Your task to perform on an android device: Open Yahoo.com Image 0: 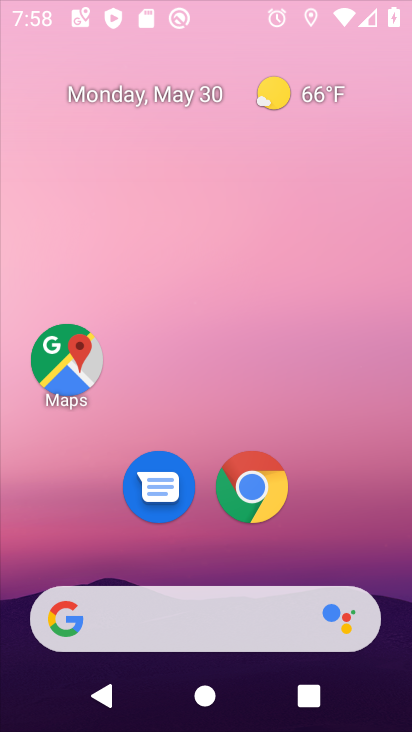
Step 0: press home button
Your task to perform on an android device: Open Yahoo.com Image 1: 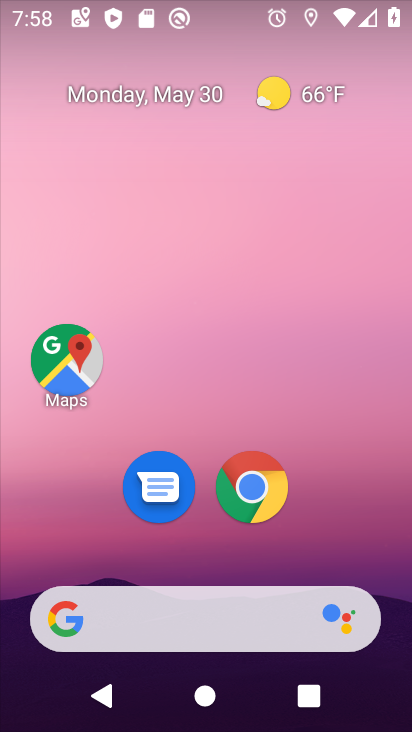
Step 1: click (65, 606)
Your task to perform on an android device: Open Yahoo.com Image 2: 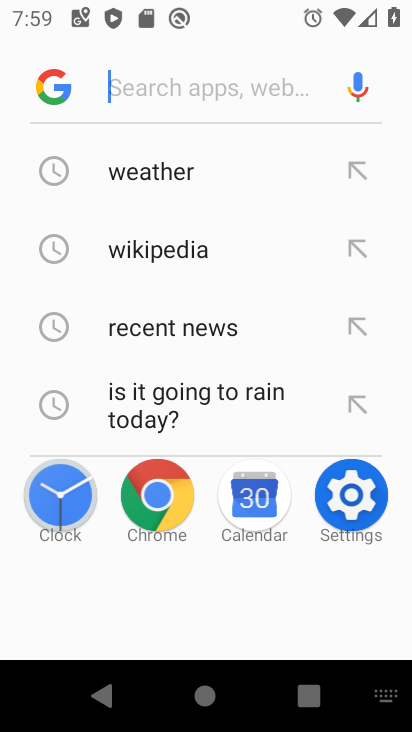
Step 2: type "Yahoo.com"
Your task to perform on an android device: Open Yahoo.com Image 3: 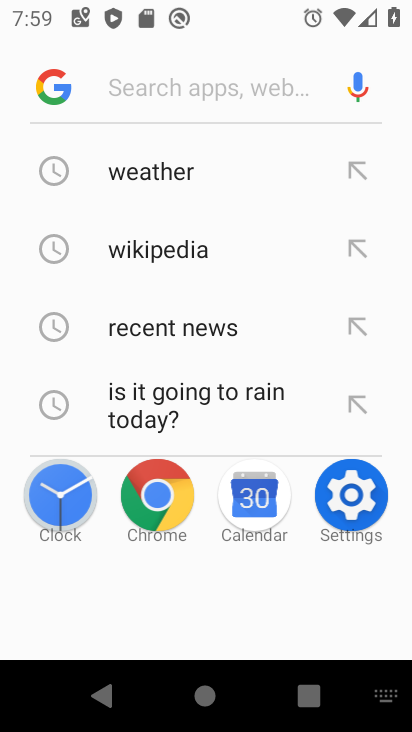
Step 3: click (214, 98)
Your task to perform on an android device: Open Yahoo.com Image 4: 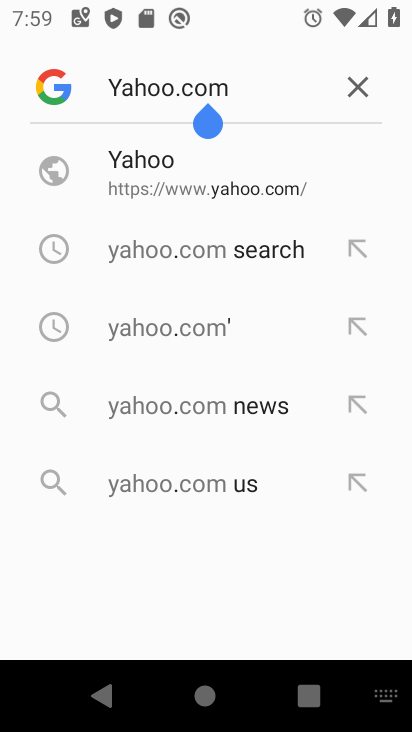
Step 4: click (160, 175)
Your task to perform on an android device: Open Yahoo.com Image 5: 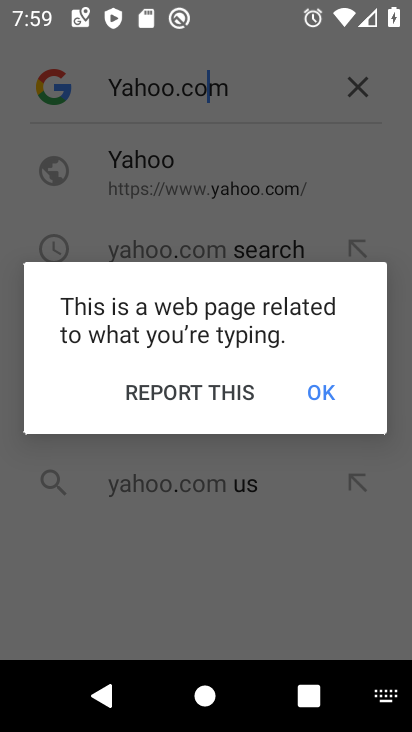
Step 5: click (329, 398)
Your task to perform on an android device: Open Yahoo.com Image 6: 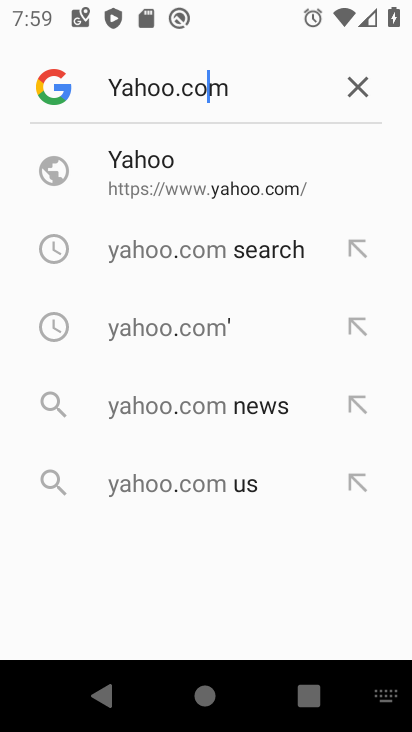
Step 6: click (137, 148)
Your task to perform on an android device: Open Yahoo.com Image 7: 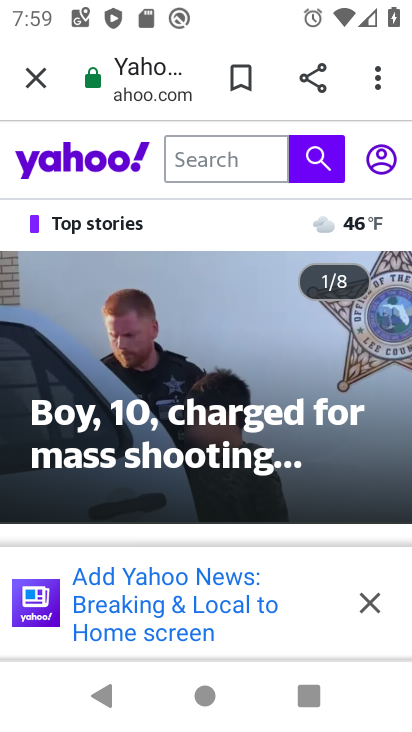
Step 7: task complete